Your task to perform on an android device: turn off location Image 0: 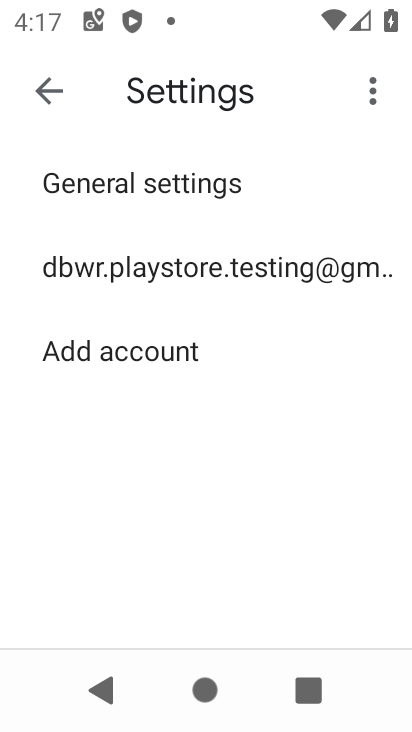
Step 0: press home button
Your task to perform on an android device: turn off location Image 1: 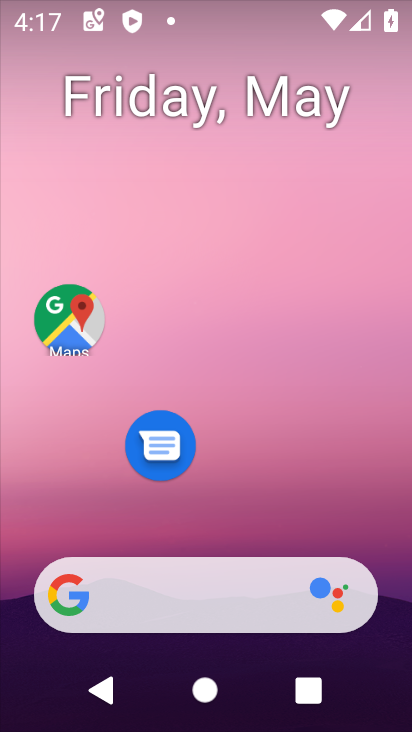
Step 1: drag from (184, 534) to (198, 10)
Your task to perform on an android device: turn off location Image 2: 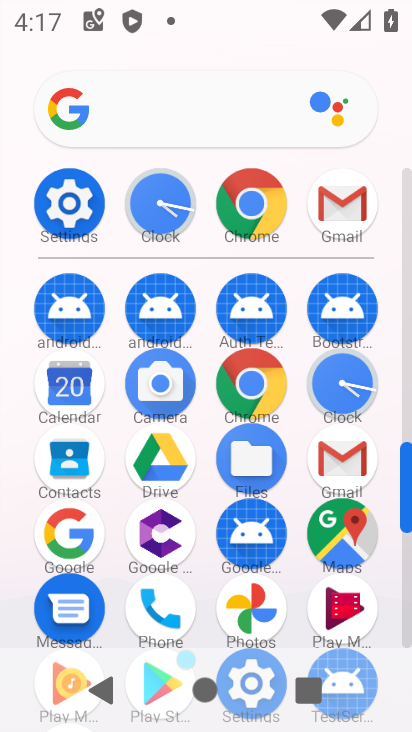
Step 2: click (58, 206)
Your task to perform on an android device: turn off location Image 3: 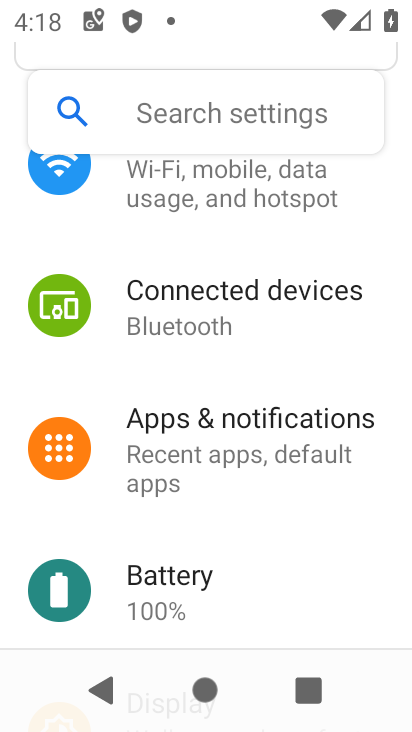
Step 3: drag from (202, 547) to (282, 164)
Your task to perform on an android device: turn off location Image 4: 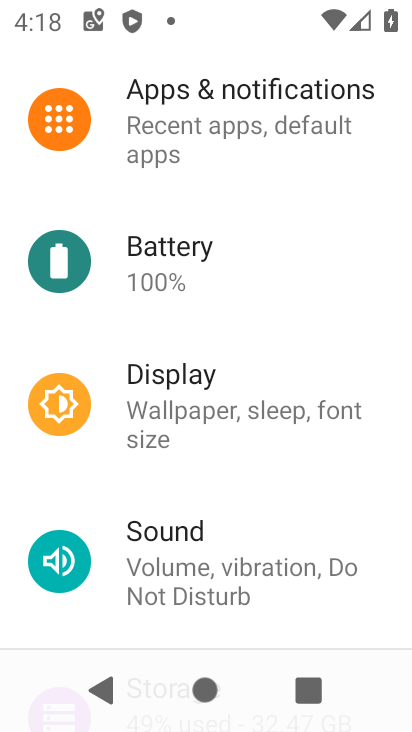
Step 4: drag from (206, 518) to (269, 174)
Your task to perform on an android device: turn off location Image 5: 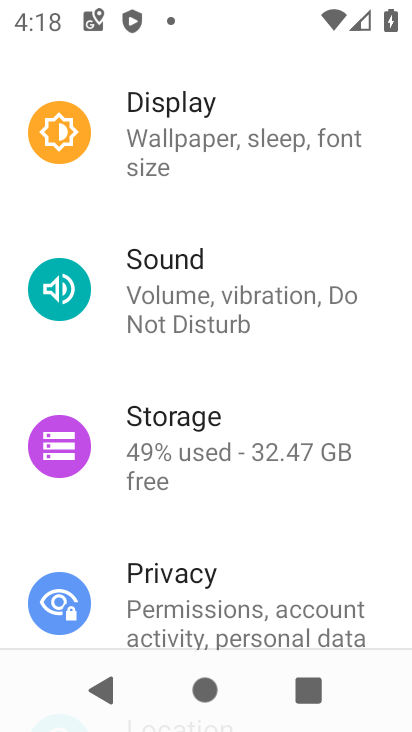
Step 5: drag from (192, 517) to (241, 151)
Your task to perform on an android device: turn off location Image 6: 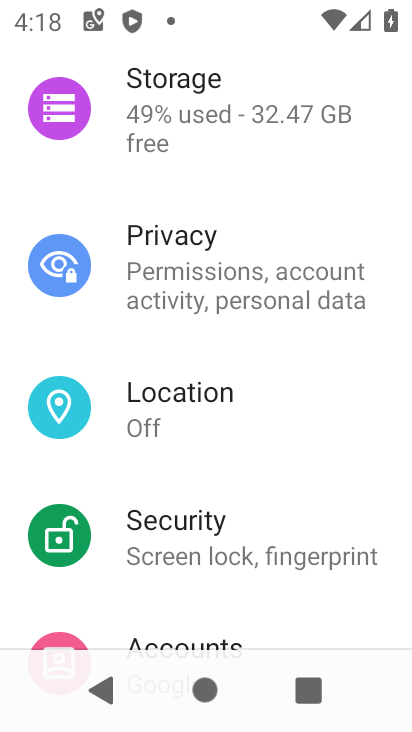
Step 6: click (195, 415)
Your task to perform on an android device: turn off location Image 7: 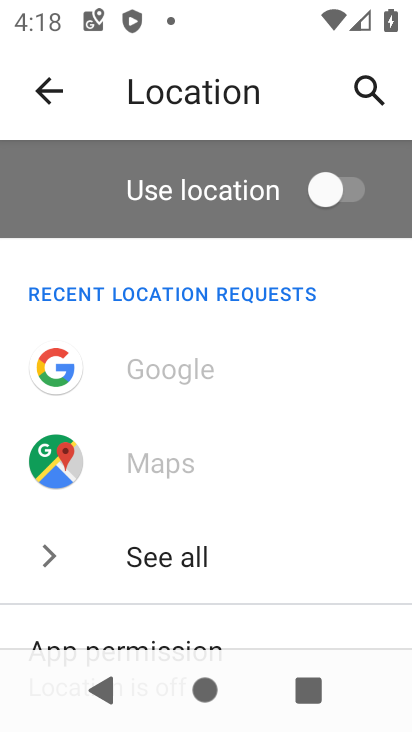
Step 7: task complete